Your task to perform on an android device: turn on showing notifications on the lock screen Image 0: 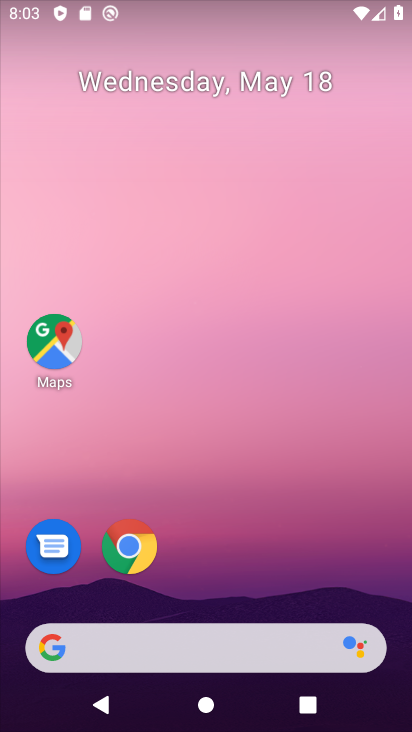
Step 0: drag from (263, 668) to (259, 130)
Your task to perform on an android device: turn on showing notifications on the lock screen Image 1: 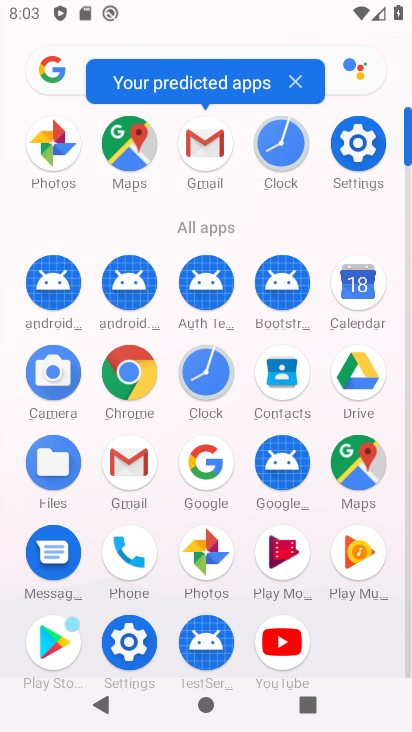
Step 1: click (343, 156)
Your task to perform on an android device: turn on showing notifications on the lock screen Image 2: 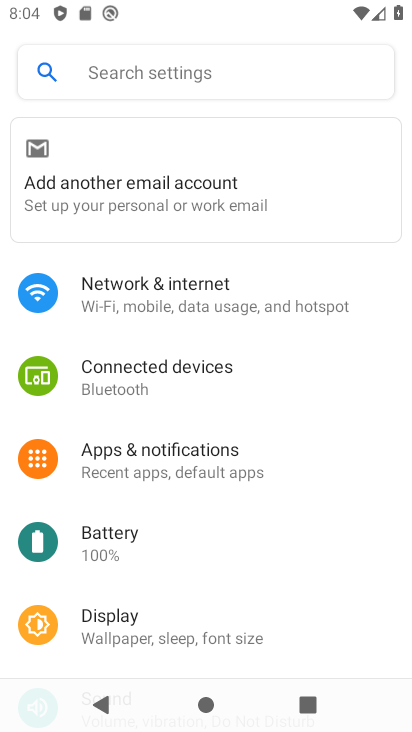
Step 2: click (147, 81)
Your task to perform on an android device: turn on showing notifications on the lock screen Image 3: 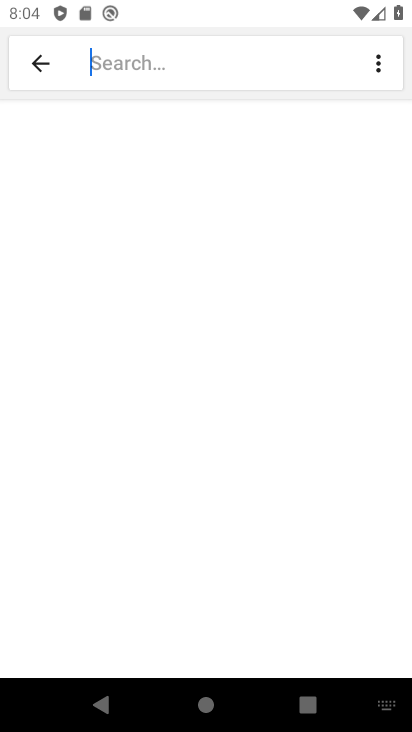
Step 3: click (375, 708)
Your task to perform on an android device: turn on showing notifications on the lock screen Image 4: 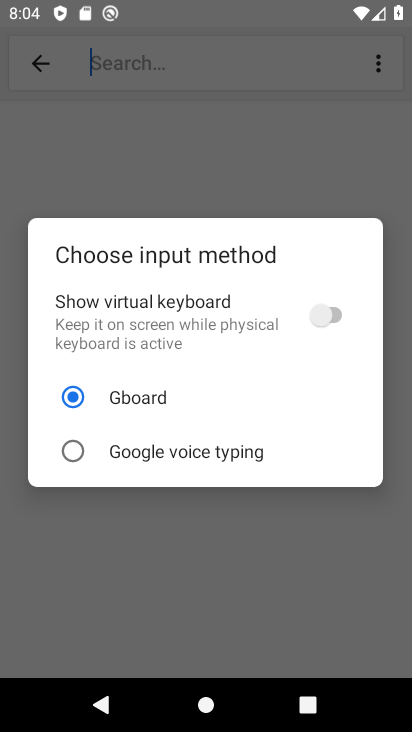
Step 4: click (329, 326)
Your task to perform on an android device: turn on showing notifications on the lock screen Image 5: 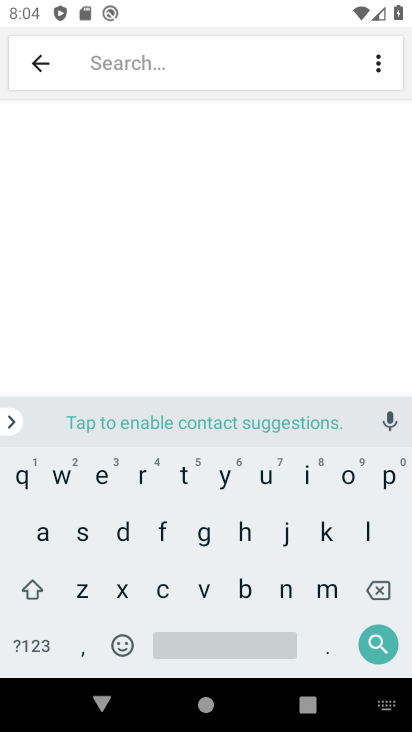
Step 5: click (282, 596)
Your task to perform on an android device: turn on showing notifications on the lock screen Image 6: 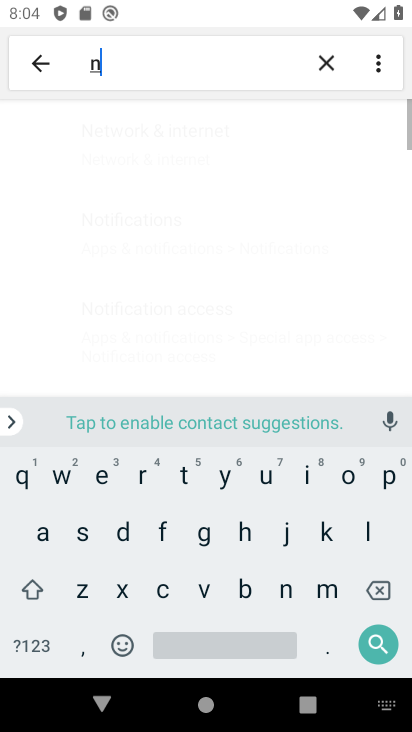
Step 6: click (350, 482)
Your task to perform on an android device: turn on showing notifications on the lock screen Image 7: 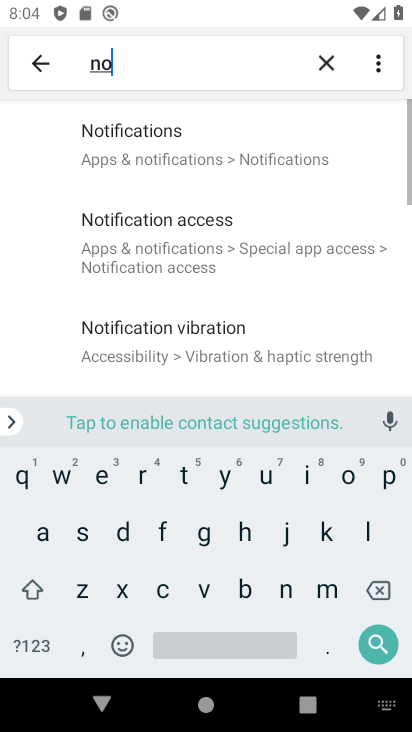
Step 7: click (156, 146)
Your task to perform on an android device: turn on showing notifications on the lock screen Image 8: 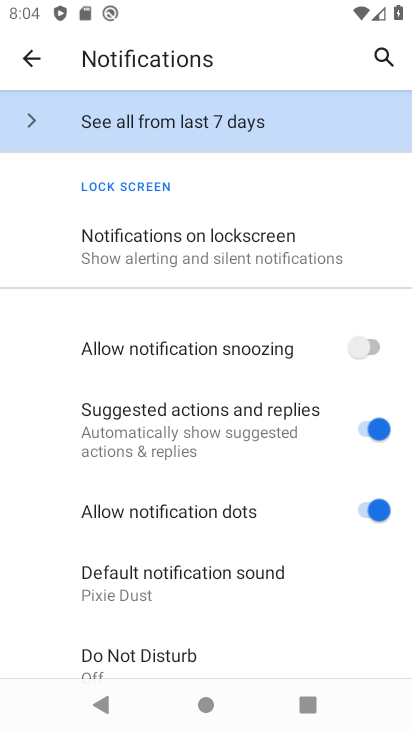
Step 8: click (175, 243)
Your task to perform on an android device: turn on showing notifications on the lock screen Image 9: 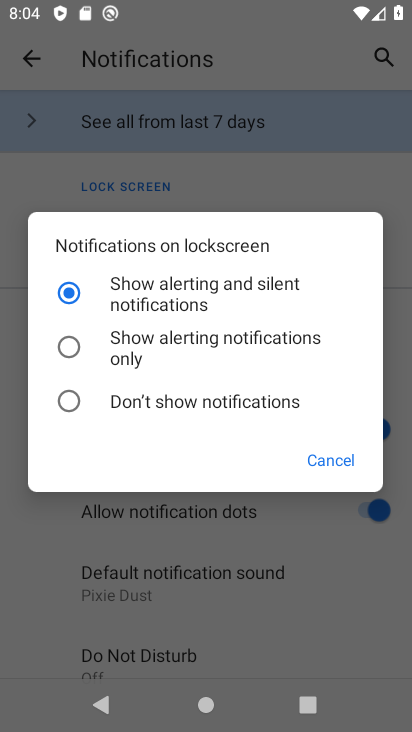
Step 9: task complete